Your task to perform on an android device: Toggle the flashlight Image 0: 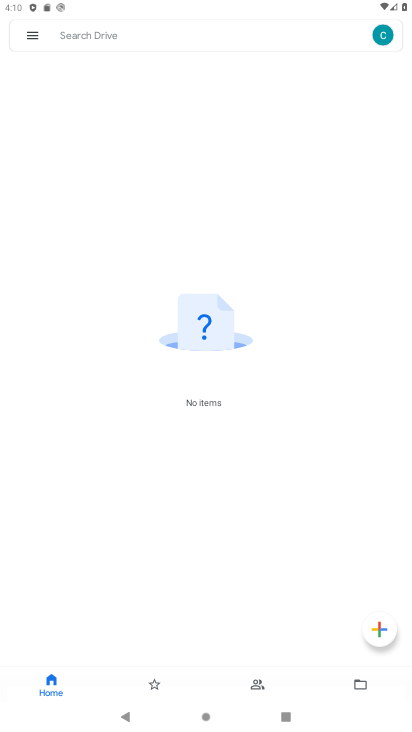
Step 0: press home button
Your task to perform on an android device: Toggle the flashlight Image 1: 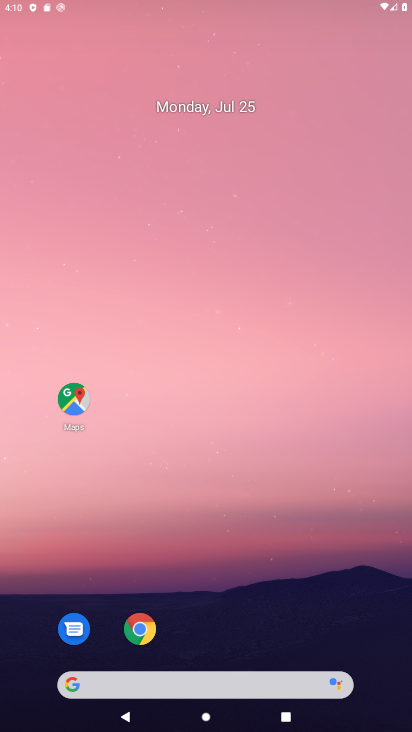
Step 1: task complete